Your task to perform on an android device: Is it going to rain tomorrow? Image 0: 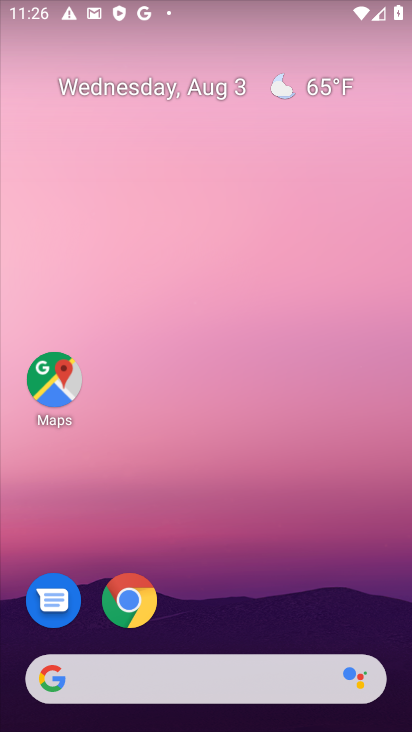
Step 0: drag from (277, 642) to (333, 34)
Your task to perform on an android device: Is it going to rain tomorrow? Image 1: 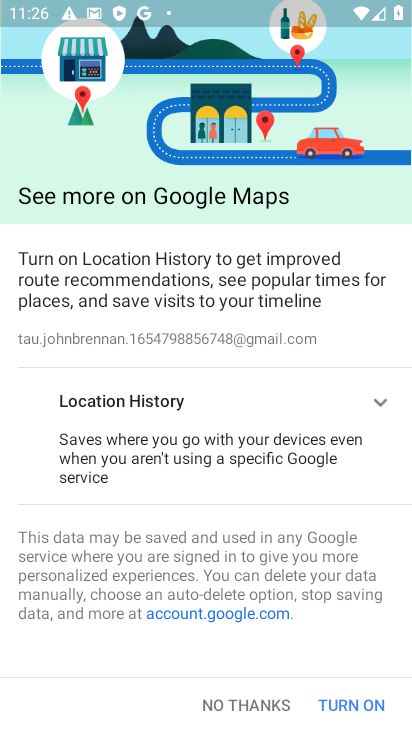
Step 1: press back button
Your task to perform on an android device: Is it going to rain tomorrow? Image 2: 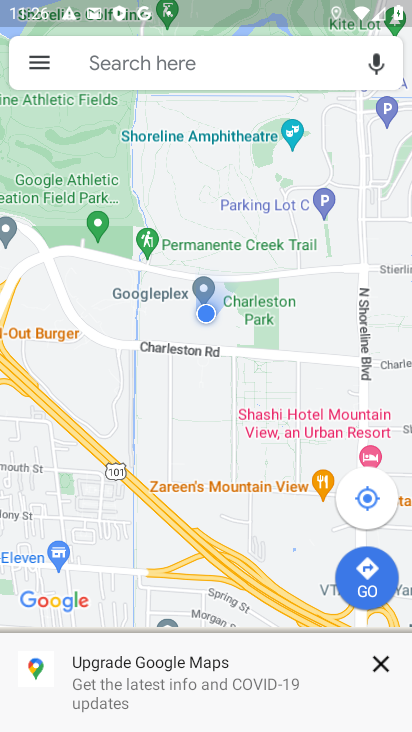
Step 2: press home button
Your task to perform on an android device: Is it going to rain tomorrow? Image 3: 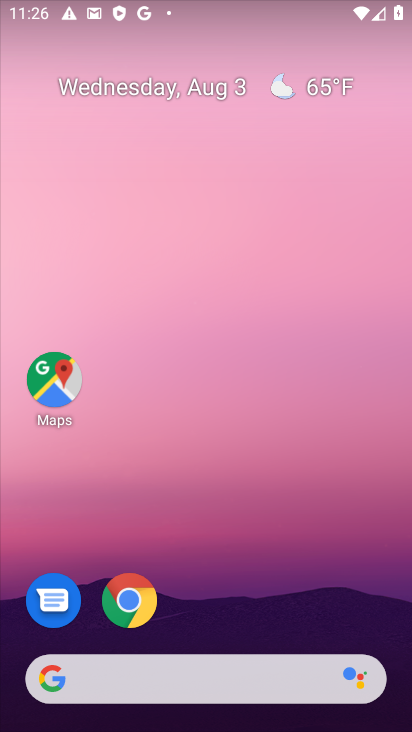
Step 3: click (124, 665)
Your task to perform on an android device: Is it going to rain tomorrow? Image 4: 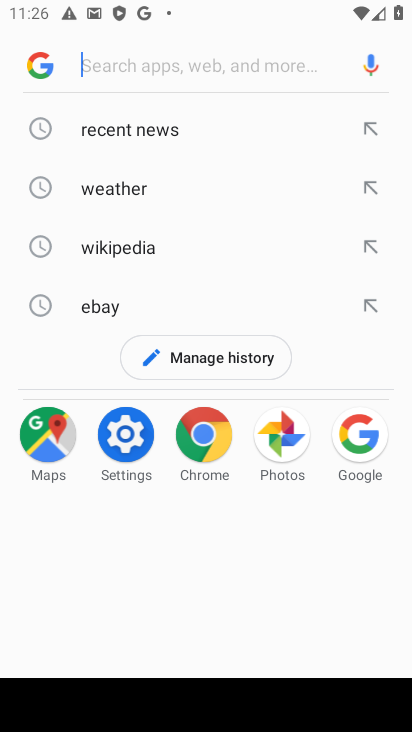
Step 4: click (127, 179)
Your task to perform on an android device: Is it going to rain tomorrow? Image 5: 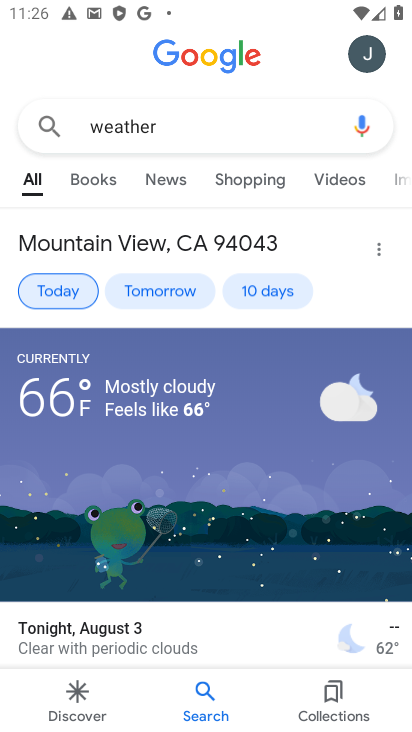
Step 5: click (125, 285)
Your task to perform on an android device: Is it going to rain tomorrow? Image 6: 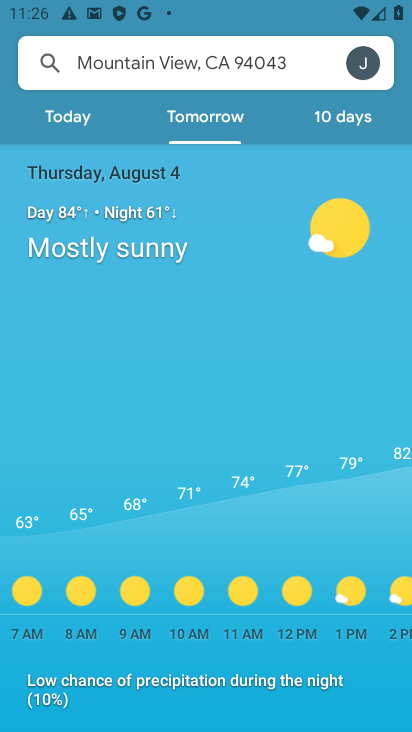
Step 6: task complete